Your task to perform on an android device: open wifi settings Image 0: 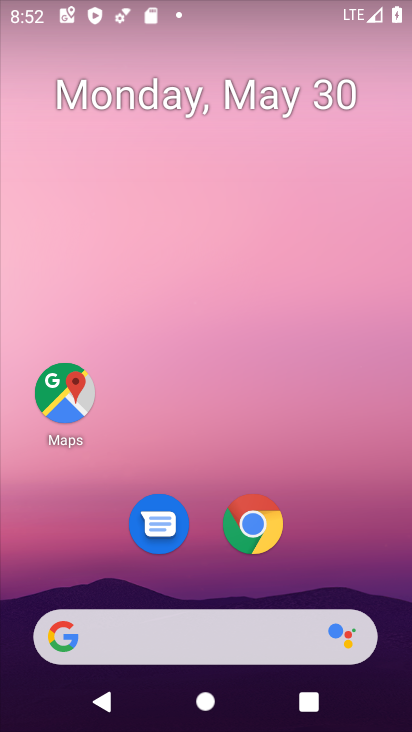
Step 0: drag from (340, 550) to (358, 107)
Your task to perform on an android device: open wifi settings Image 1: 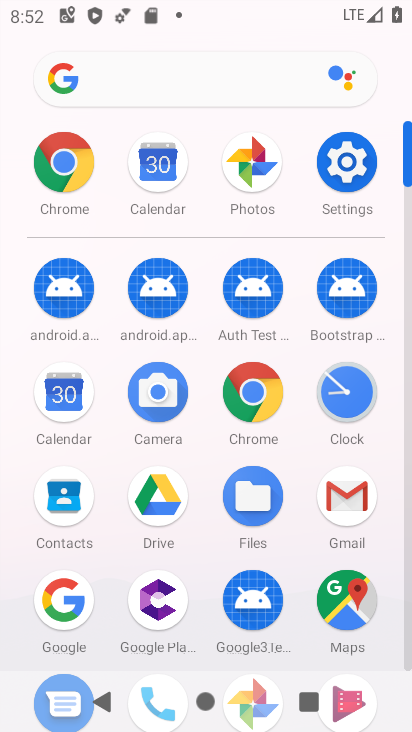
Step 1: click (355, 173)
Your task to perform on an android device: open wifi settings Image 2: 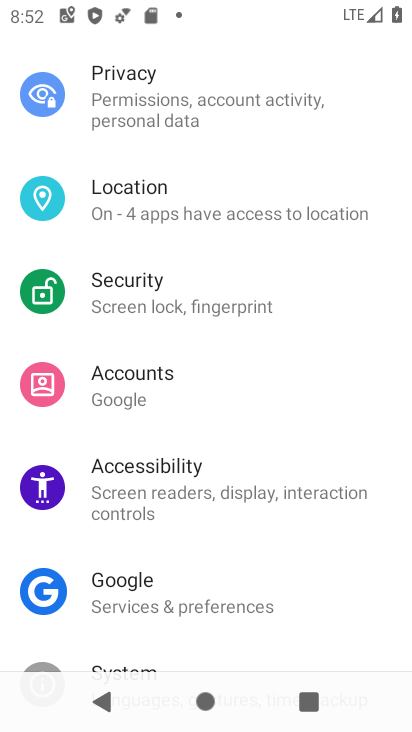
Step 2: drag from (273, 229) to (246, 467)
Your task to perform on an android device: open wifi settings Image 3: 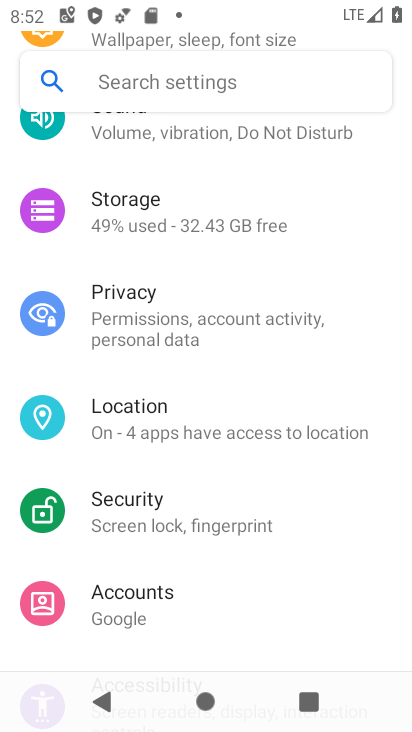
Step 3: drag from (252, 197) to (246, 550)
Your task to perform on an android device: open wifi settings Image 4: 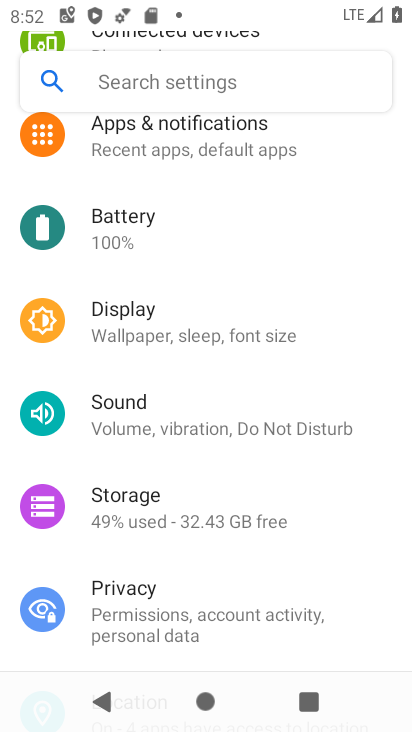
Step 4: drag from (253, 305) to (182, 603)
Your task to perform on an android device: open wifi settings Image 5: 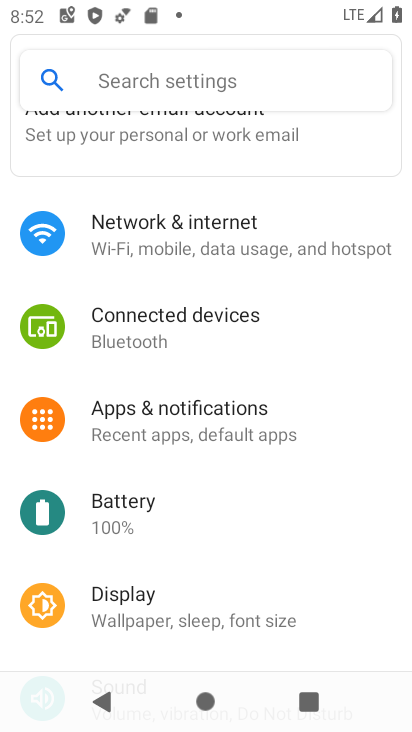
Step 5: click (230, 249)
Your task to perform on an android device: open wifi settings Image 6: 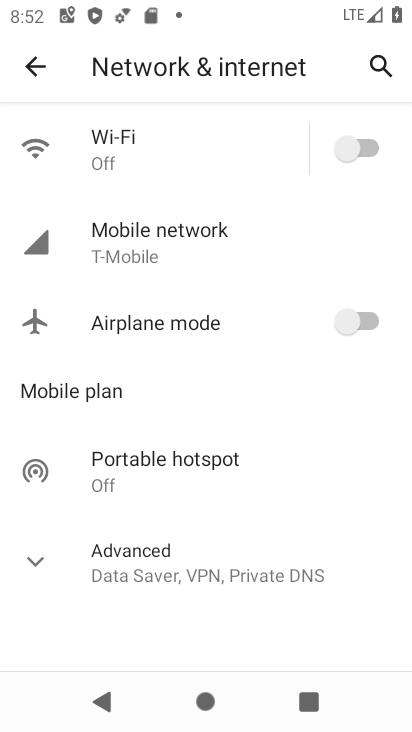
Step 6: click (260, 159)
Your task to perform on an android device: open wifi settings Image 7: 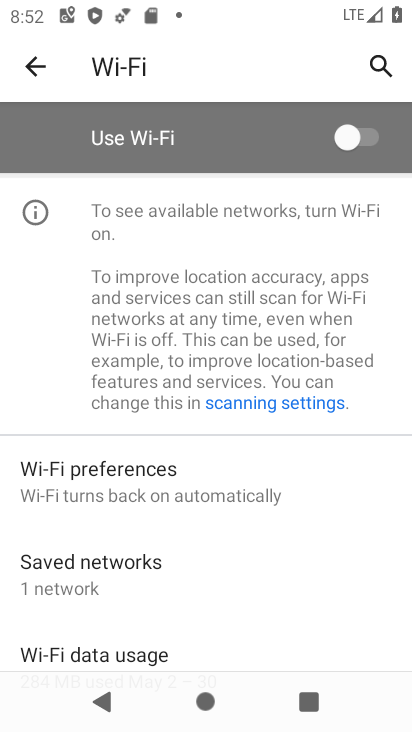
Step 7: task complete